Your task to perform on an android device: Open the stopwatch Image 0: 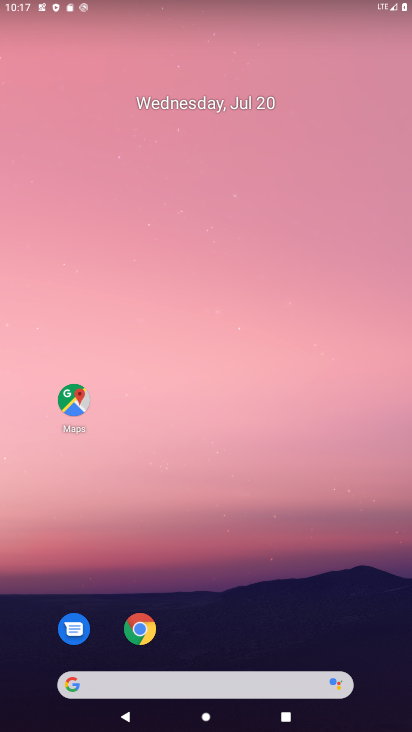
Step 0: press home button
Your task to perform on an android device: Open the stopwatch Image 1: 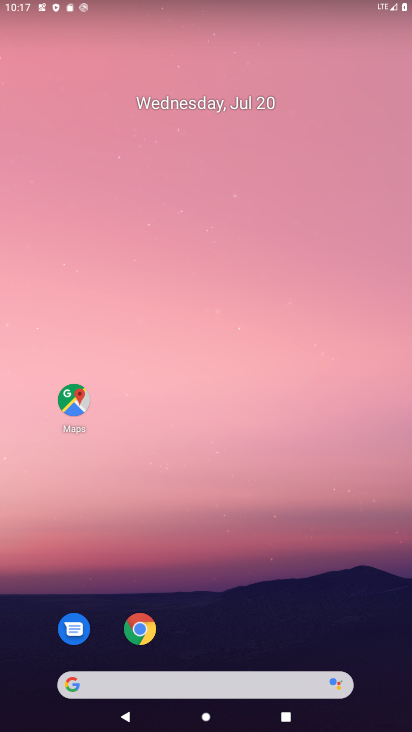
Step 1: drag from (300, 545) to (353, 9)
Your task to perform on an android device: Open the stopwatch Image 2: 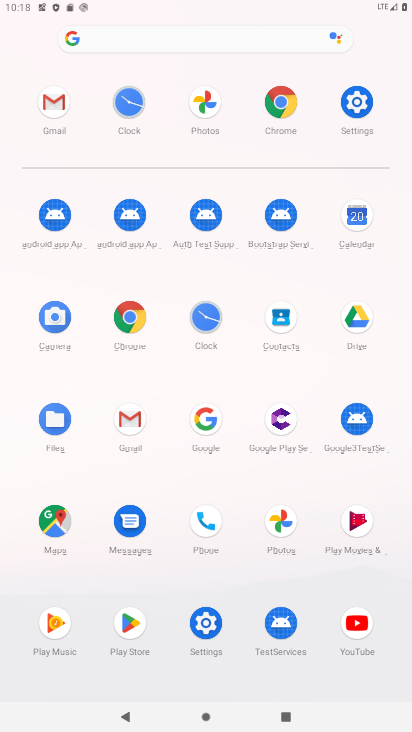
Step 2: click (190, 315)
Your task to perform on an android device: Open the stopwatch Image 3: 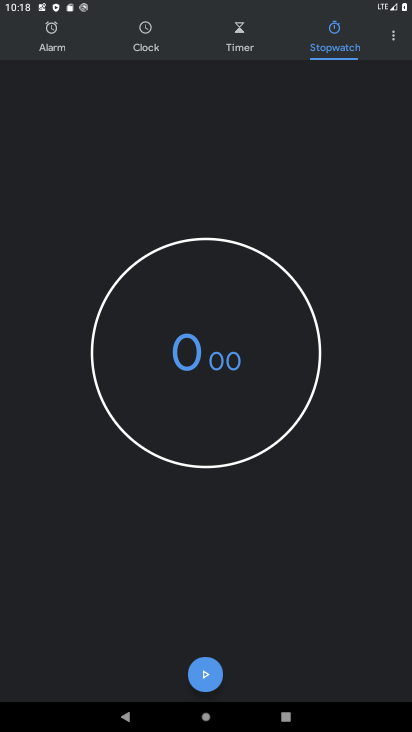
Step 3: task complete